Your task to perform on an android device: allow cookies in the chrome app Image 0: 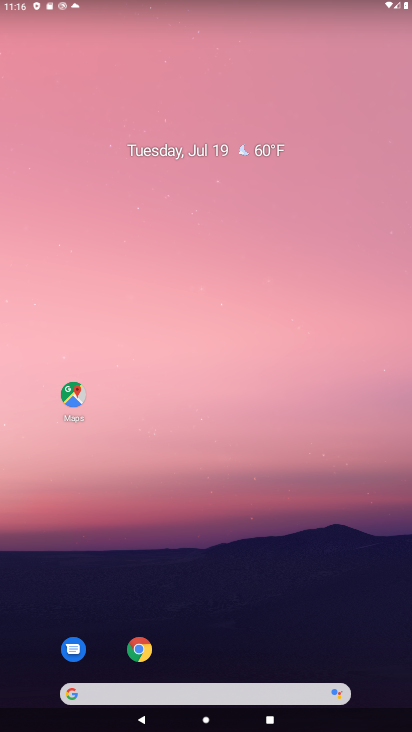
Step 0: click (125, 649)
Your task to perform on an android device: allow cookies in the chrome app Image 1: 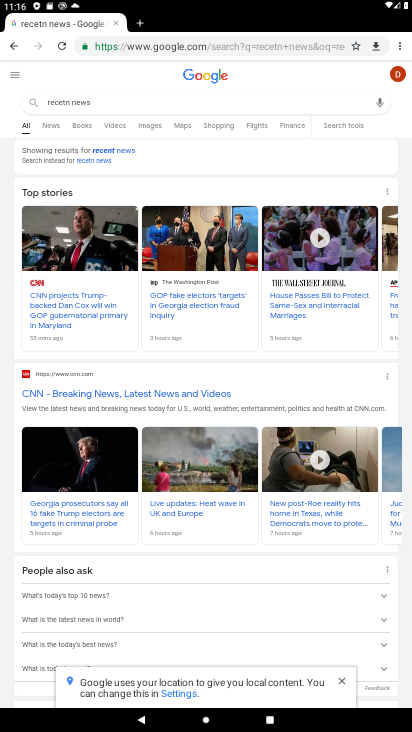
Step 1: drag from (401, 48) to (311, 280)
Your task to perform on an android device: allow cookies in the chrome app Image 2: 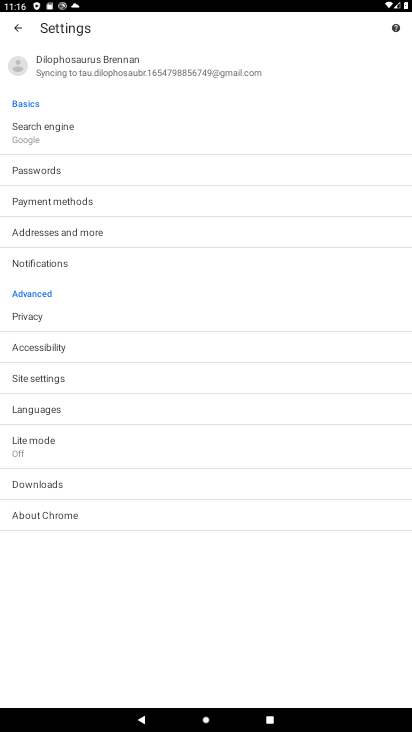
Step 2: click (75, 377)
Your task to perform on an android device: allow cookies in the chrome app Image 3: 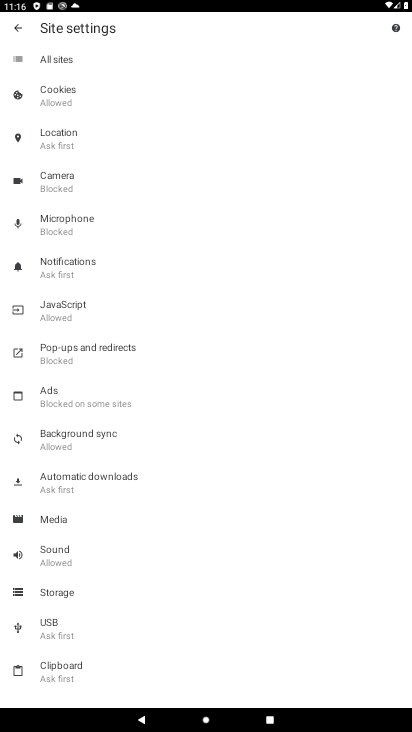
Step 3: click (73, 91)
Your task to perform on an android device: allow cookies in the chrome app Image 4: 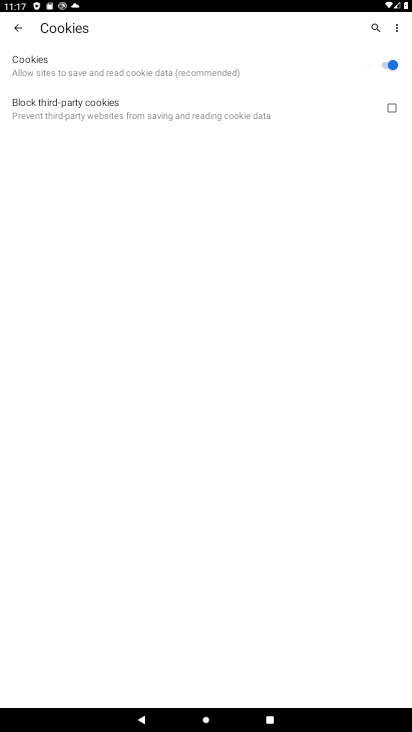
Step 4: task complete